Your task to perform on an android device: Open network settings Image 0: 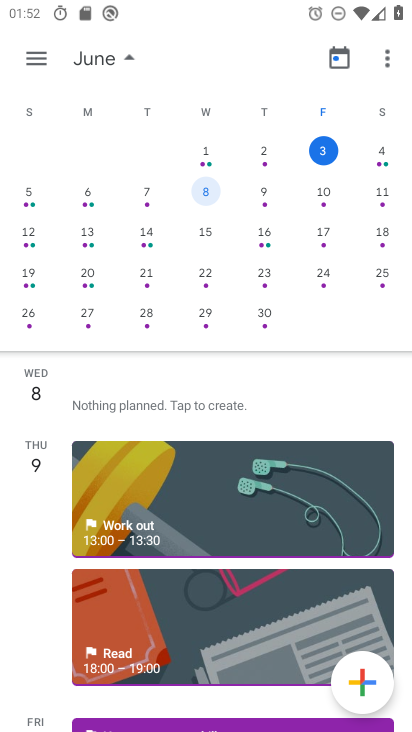
Step 0: press home button
Your task to perform on an android device: Open network settings Image 1: 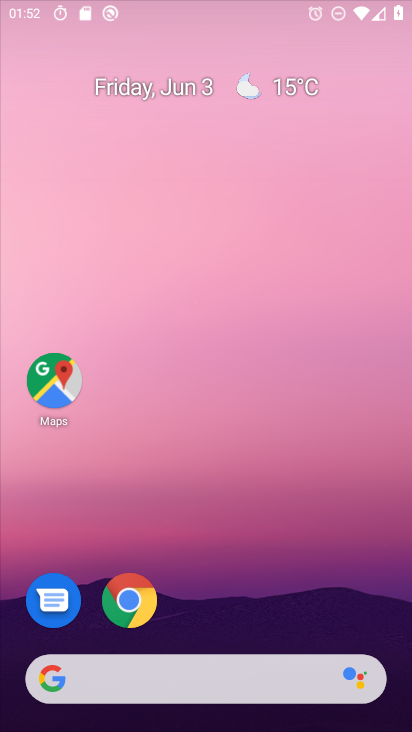
Step 1: drag from (207, 596) to (274, 51)
Your task to perform on an android device: Open network settings Image 2: 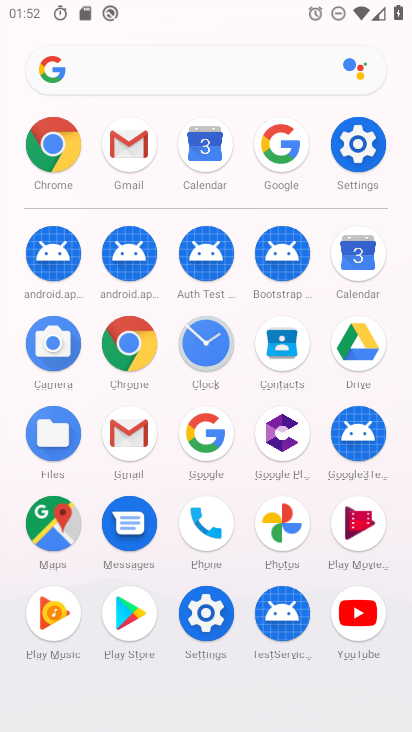
Step 2: click (355, 148)
Your task to perform on an android device: Open network settings Image 3: 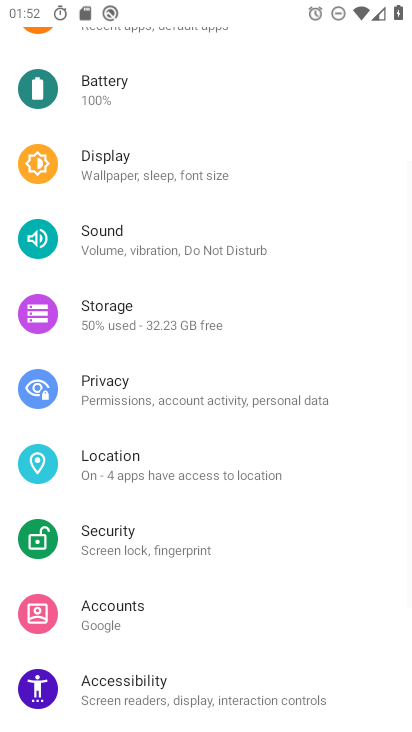
Step 3: drag from (163, 105) to (231, 590)
Your task to perform on an android device: Open network settings Image 4: 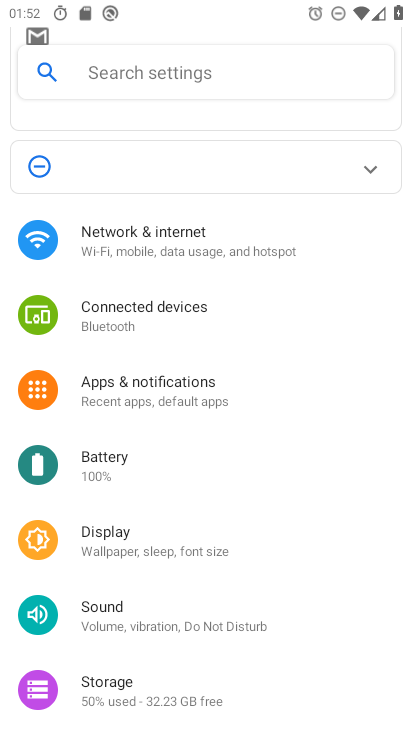
Step 4: click (159, 231)
Your task to perform on an android device: Open network settings Image 5: 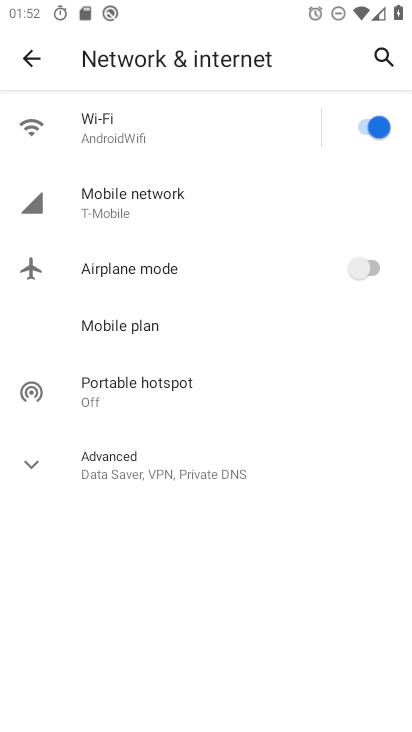
Step 5: click (149, 199)
Your task to perform on an android device: Open network settings Image 6: 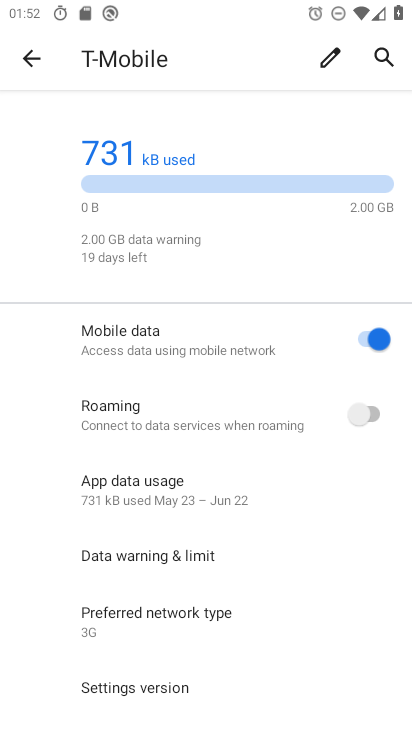
Step 6: task complete